Your task to perform on an android device: Go to network settings Image 0: 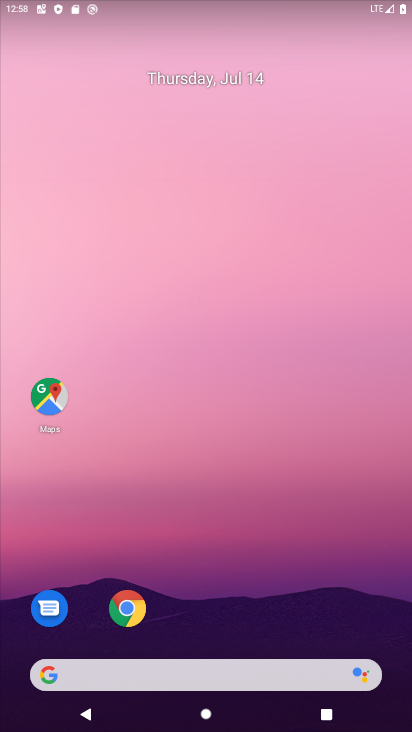
Step 0: drag from (0, 709) to (316, 60)
Your task to perform on an android device: Go to network settings Image 1: 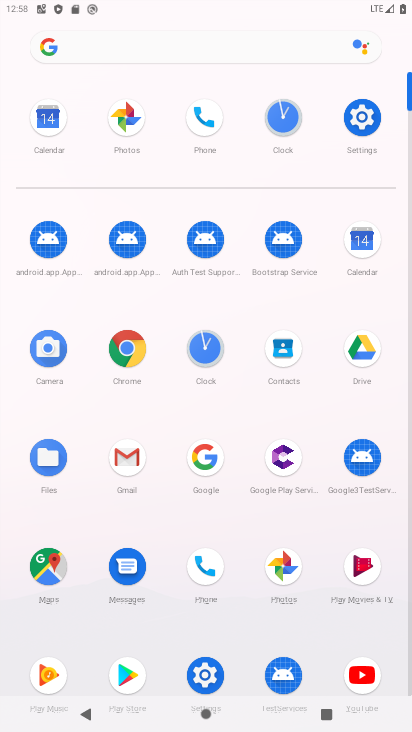
Step 1: click (361, 106)
Your task to perform on an android device: Go to network settings Image 2: 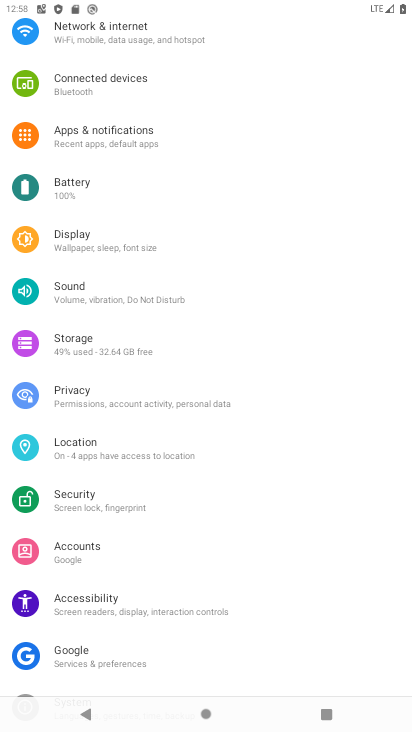
Step 2: click (126, 42)
Your task to perform on an android device: Go to network settings Image 3: 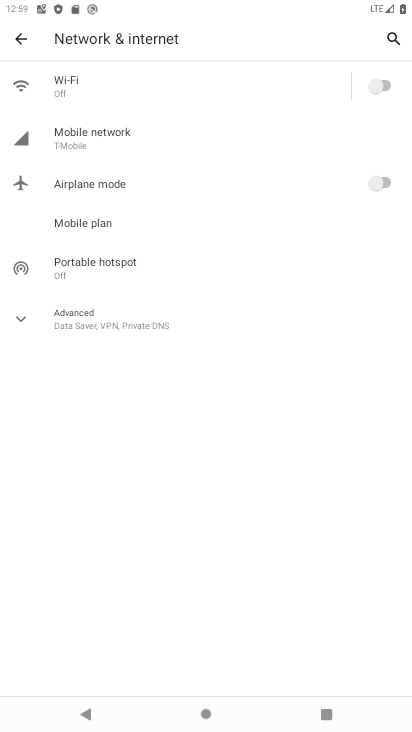
Step 3: click (57, 145)
Your task to perform on an android device: Go to network settings Image 4: 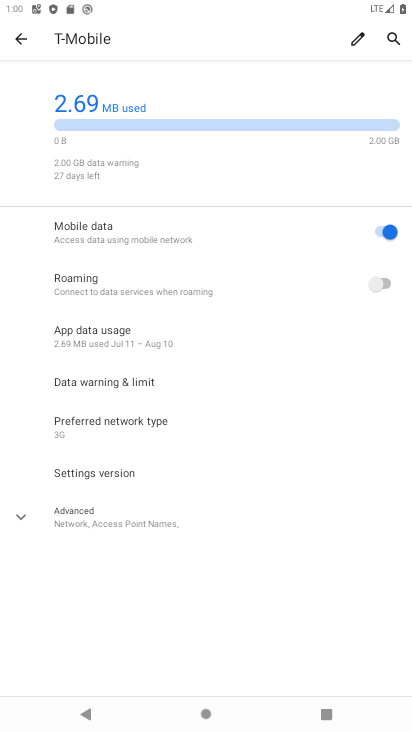
Step 4: task complete